Your task to perform on an android device: What's on my calendar tomorrow? Image 0: 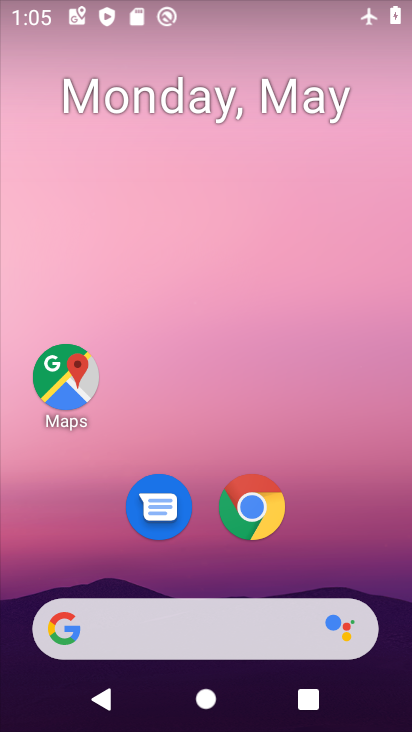
Step 0: drag from (230, 723) to (220, 121)
Your task to perform on an android device: What's on my calendar tomorrow? Image 1: 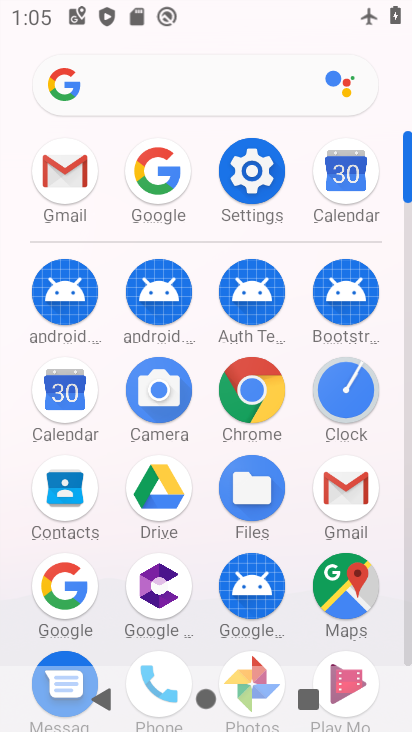
Step 1: click (65, 391)
Your task to perform on an android device: What's on my calendar tomorrow? Image 2: 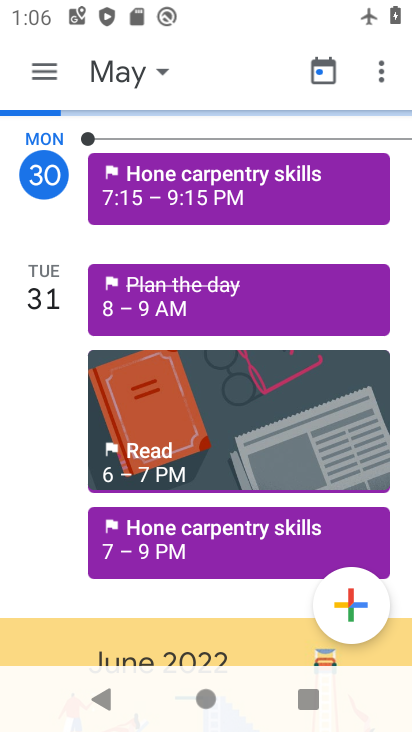
Step 2: click (162, 69)
Your task to perform on an android device: What's on my calendar tomorrow? Image 3: 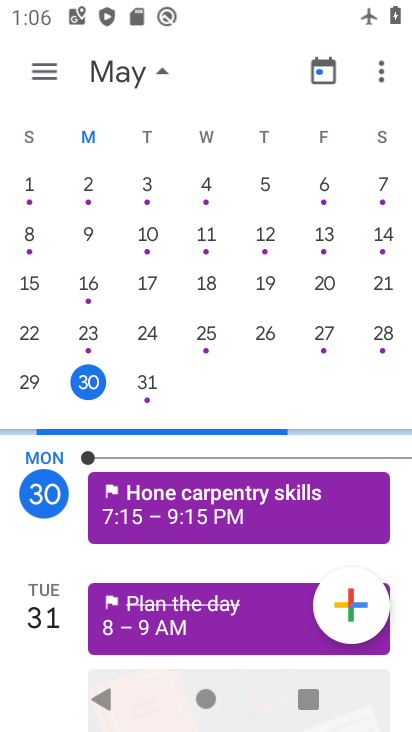
Step 3: click (147, 382)
Your task to perform on an android device: What's on my calendar tomorrow? Image 4: 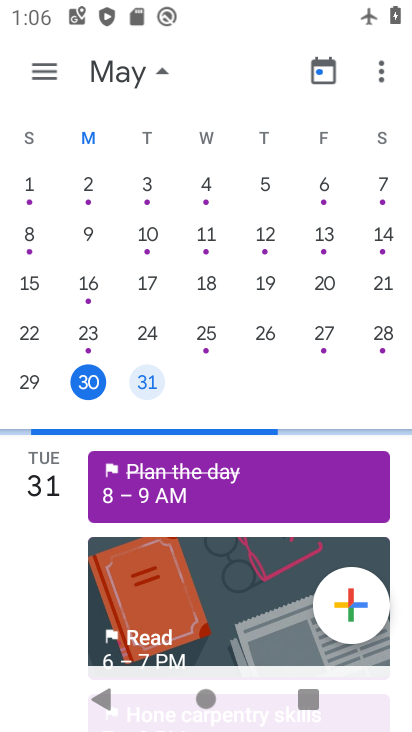
Step 4: click (162, 69)
Your task to perform on an android device: What's on my calendar tomorrow? Image 5: 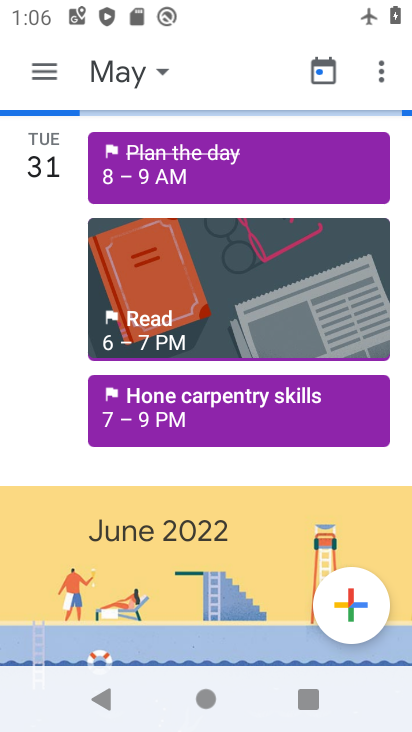
Step 5: task complete